Your task to perform on an android device: Open the calendar app, open the side menu, and click the "Day" option Image 0: 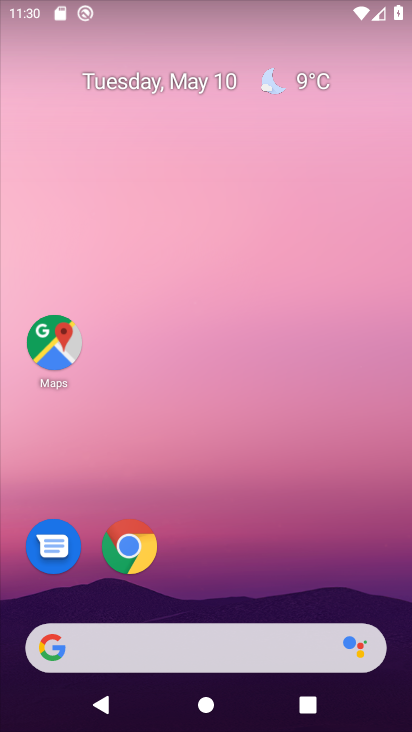
Step 0: drag from (358, 546) to (328, 228)
Your task to perform on an android device: Open the calendar app, open the side menu, and click the "Day" option Image 1: 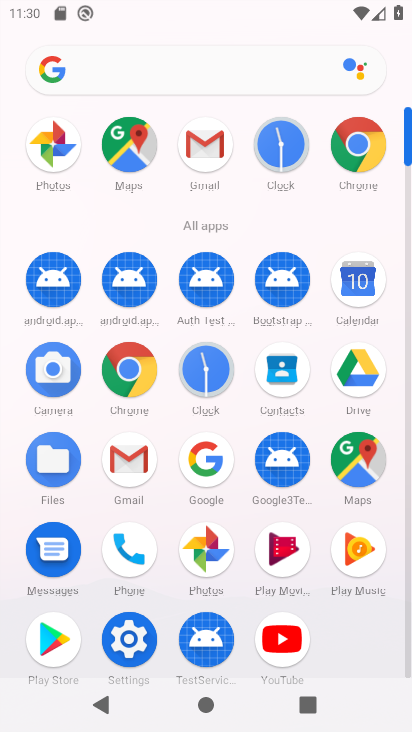
Step 1: click (362, 291)
Your task to perform on an android device: Open the calendar app, open the side menu, and click the "Day" option Image 2: 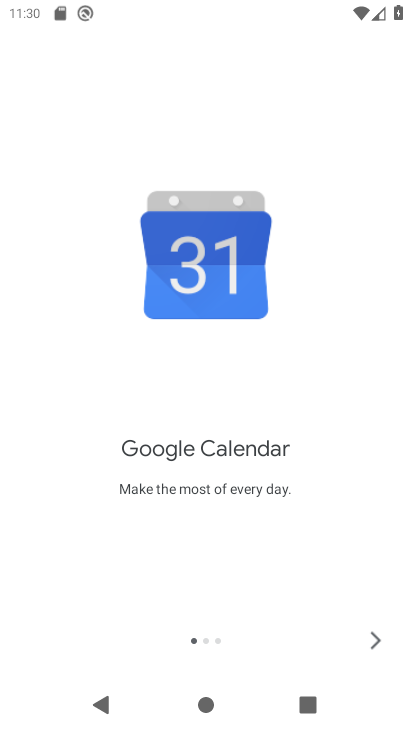
Step 2: click (365, 637)
Your task to perform on an android device: Open the calendar app, open the side menu, and click the "Day" option Image 3: 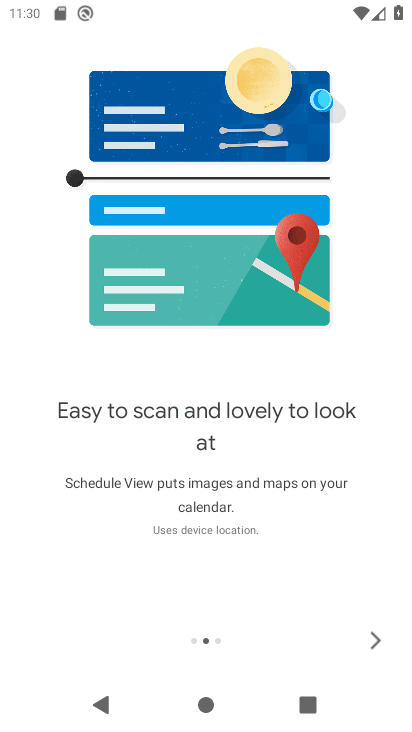
Step 3: click (366, 637)
Your task to perform on an android device: Open the calendar app, open the side menu, and click the "Day" option Image 4: 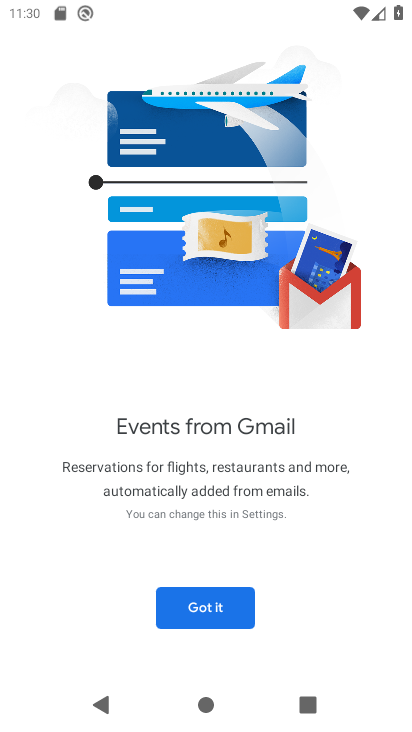
Step 4: click (189, 596)
Your task to perform on an android device: Open the calendar app, open the side menu, and click the "Day" option Image 5: 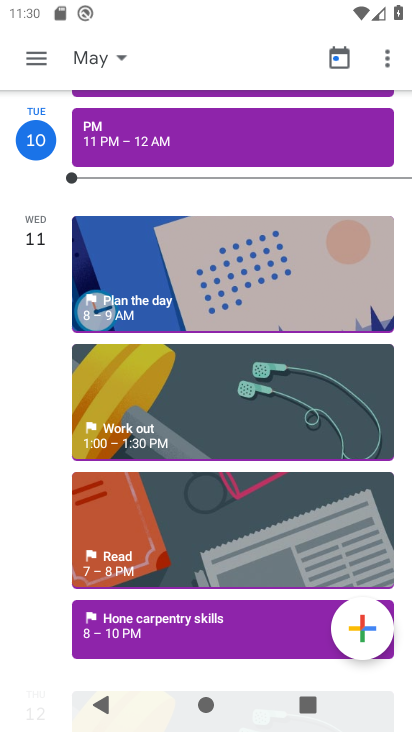
Step 5: click (33, 59)
Your task to perform on an android device: Open the calendar app, open the side menu, and click the "Day" option Image 6: 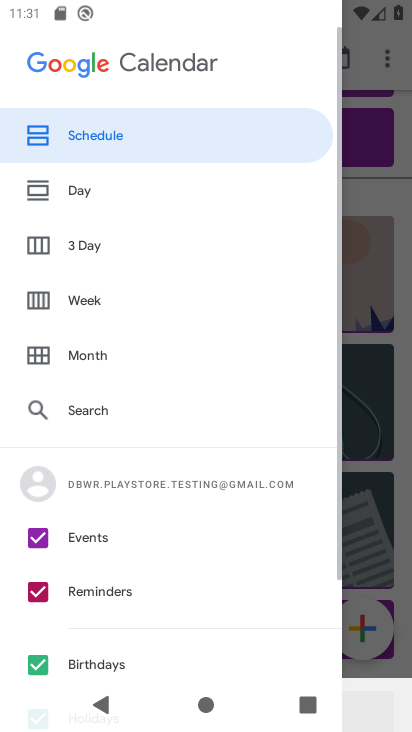
Step 6: click (128, 187)
Your task to perform on an android device: Open the calendar app, open the side menu, and click the "Day" option Image 7: 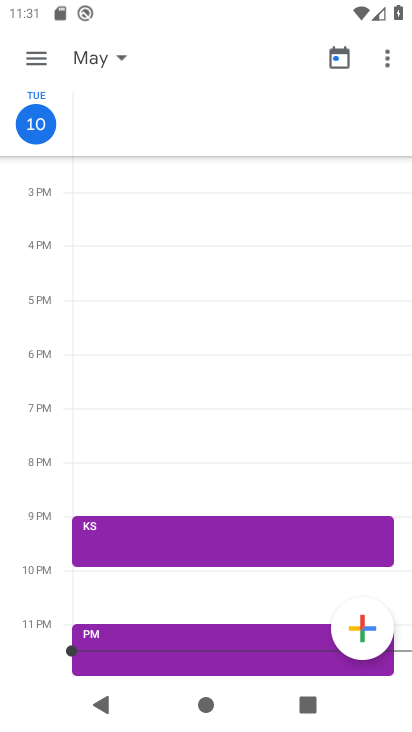
Step 7: task complete